Your task to perform on an android device: Go to notification settings Image 0: 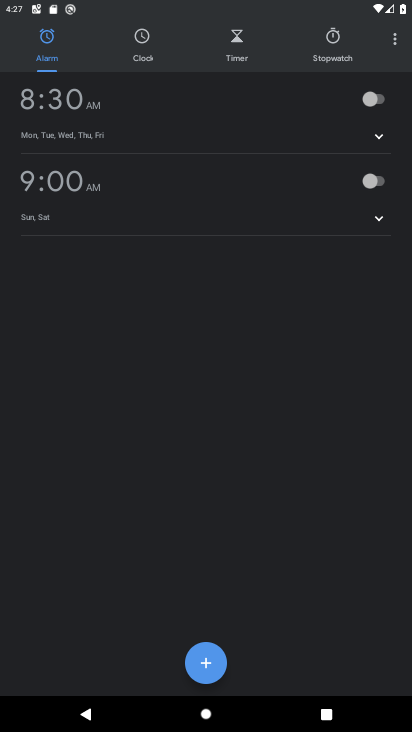
Step 0: press home button
Your task to perform on an android device: Go to notification settings Image 1: 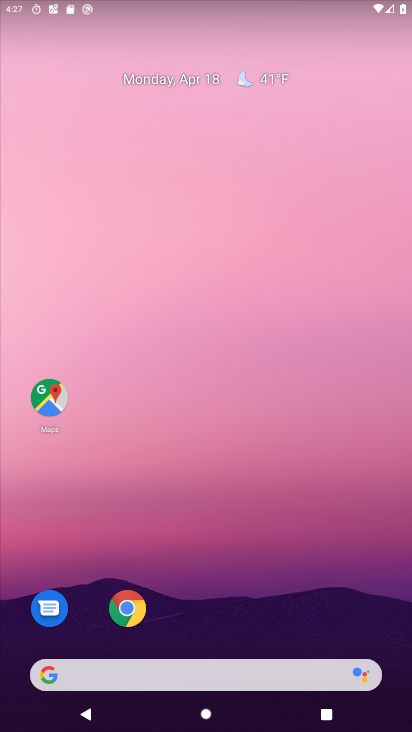
Step 1: drag from (224, 594) to (294, 237)
Your task to perform on an android device: Go to notification settings Image 2: 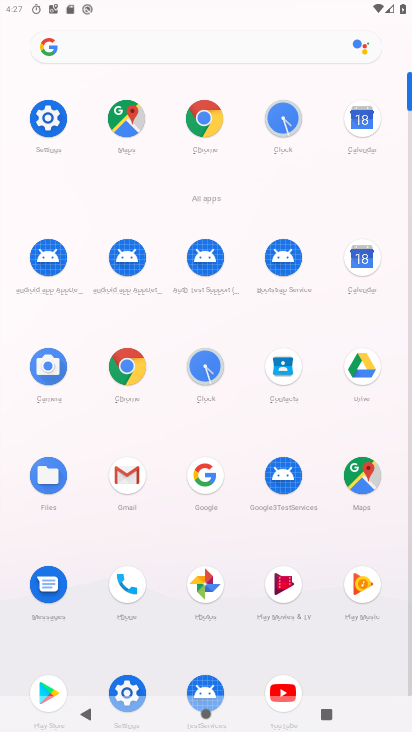
Step 2: click (125, 694)
Your task to perform on an android device: Go to notification settings Image 3: 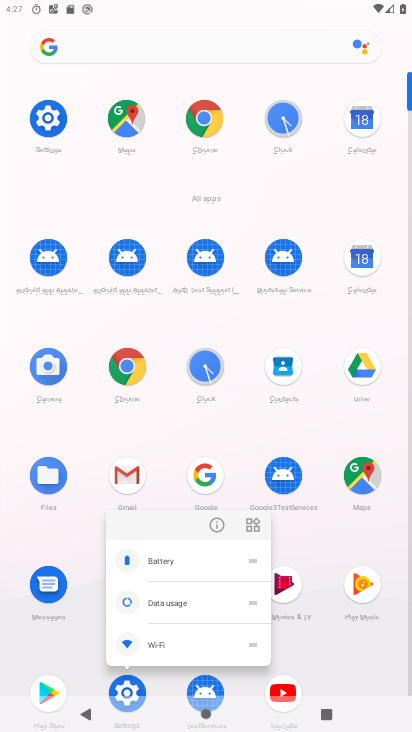
Step 3: click (124, 687)
Your task to perform on an android device: Go to notification settings Image 4: 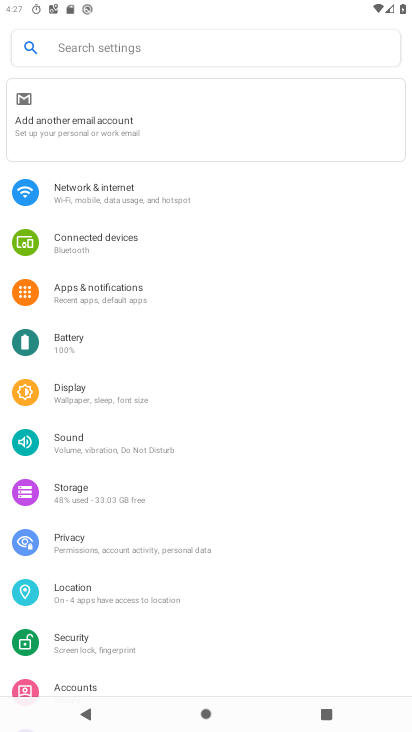
Step 4: click (129, 294)
Your task to perform on an android device: Go to notification settings Image 5: 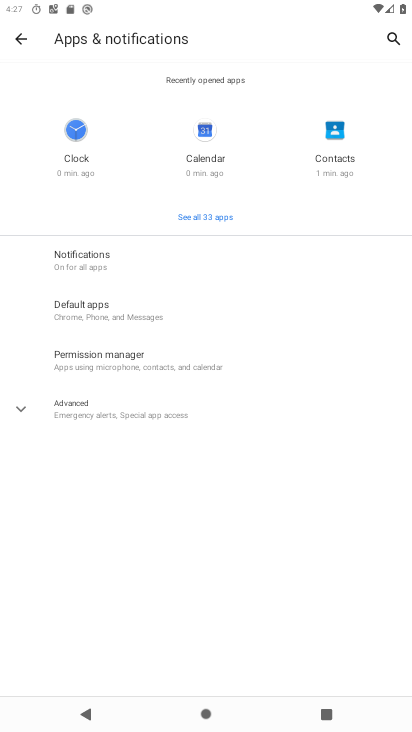
Step 5: click (100, 255)
Your task to perform on an android device: Go to notification settings Image 6: 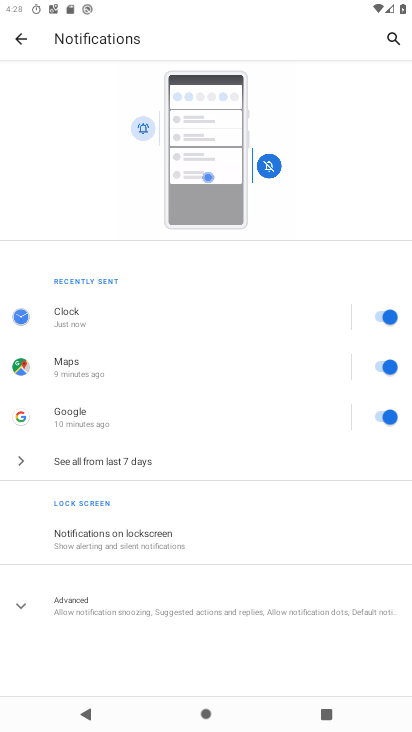
Step 6: drag from (276, 610) to (304, 393)
Your task to perform on an android device: Go to notification settings Image 7: 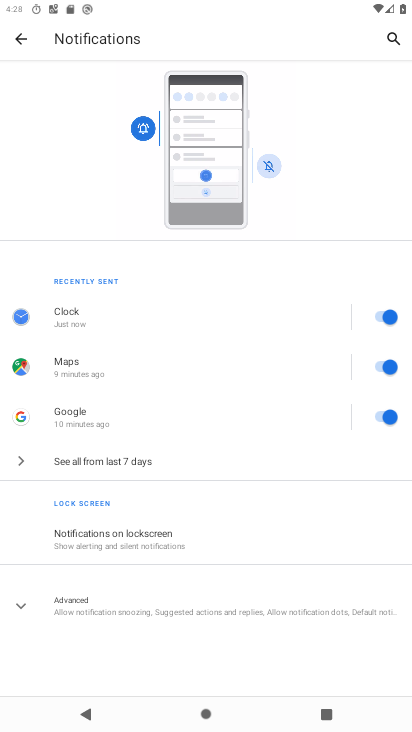
Step 7: click (185, 611)
Your task to perform on an android device: Go to notification settings Image 8: 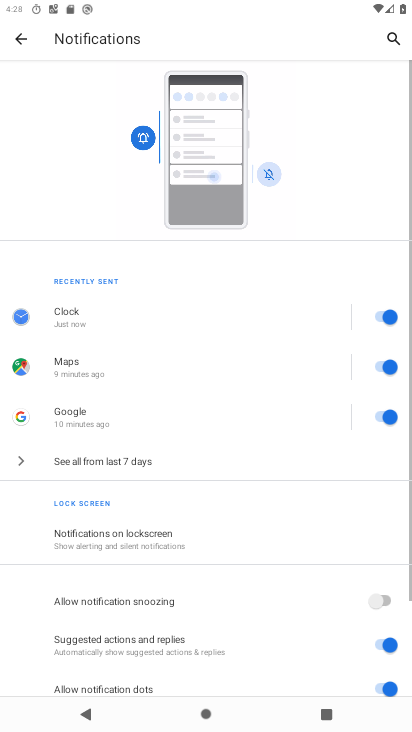
Step 8: task complete